Your task to perform on an android device: Open Google Chrome Image 0: 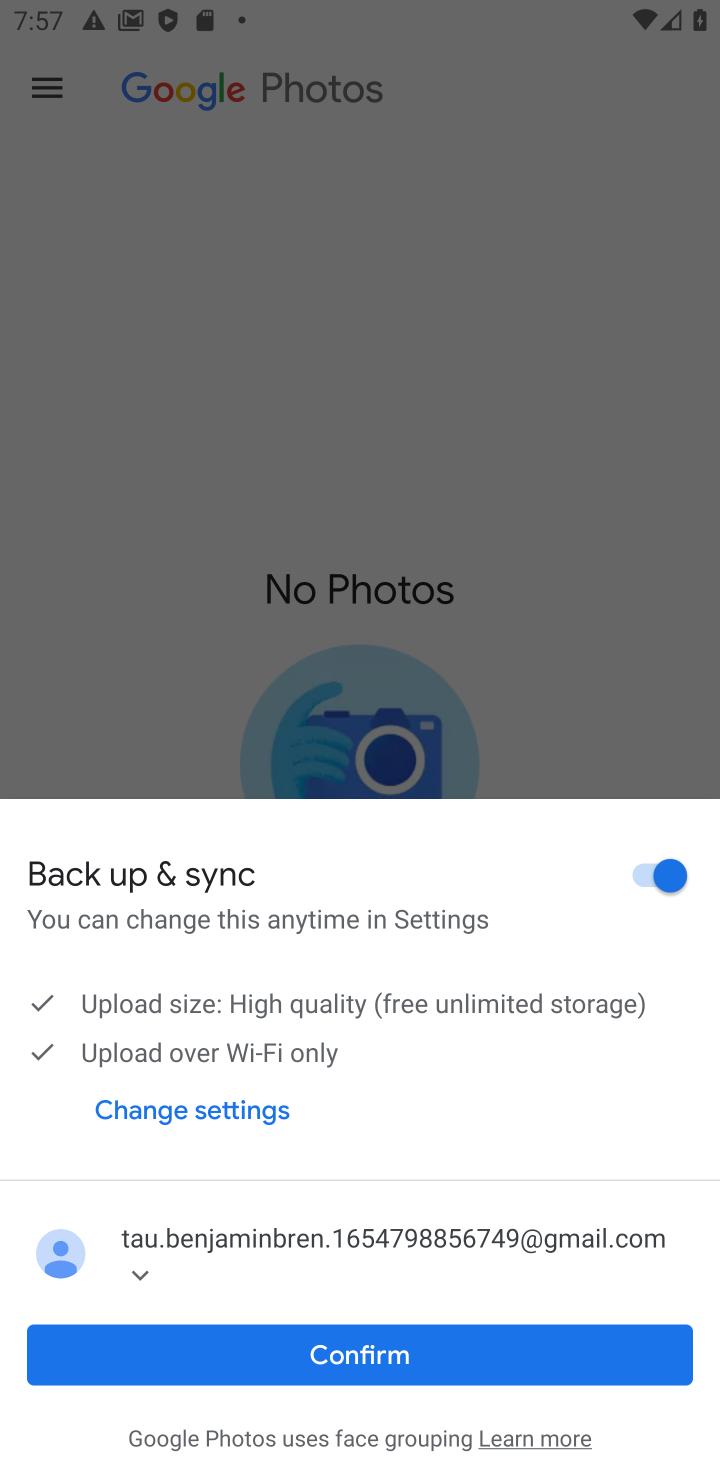
Step 0: press home button
Your task to perform on an android device: Open Google Chrome Image 1: 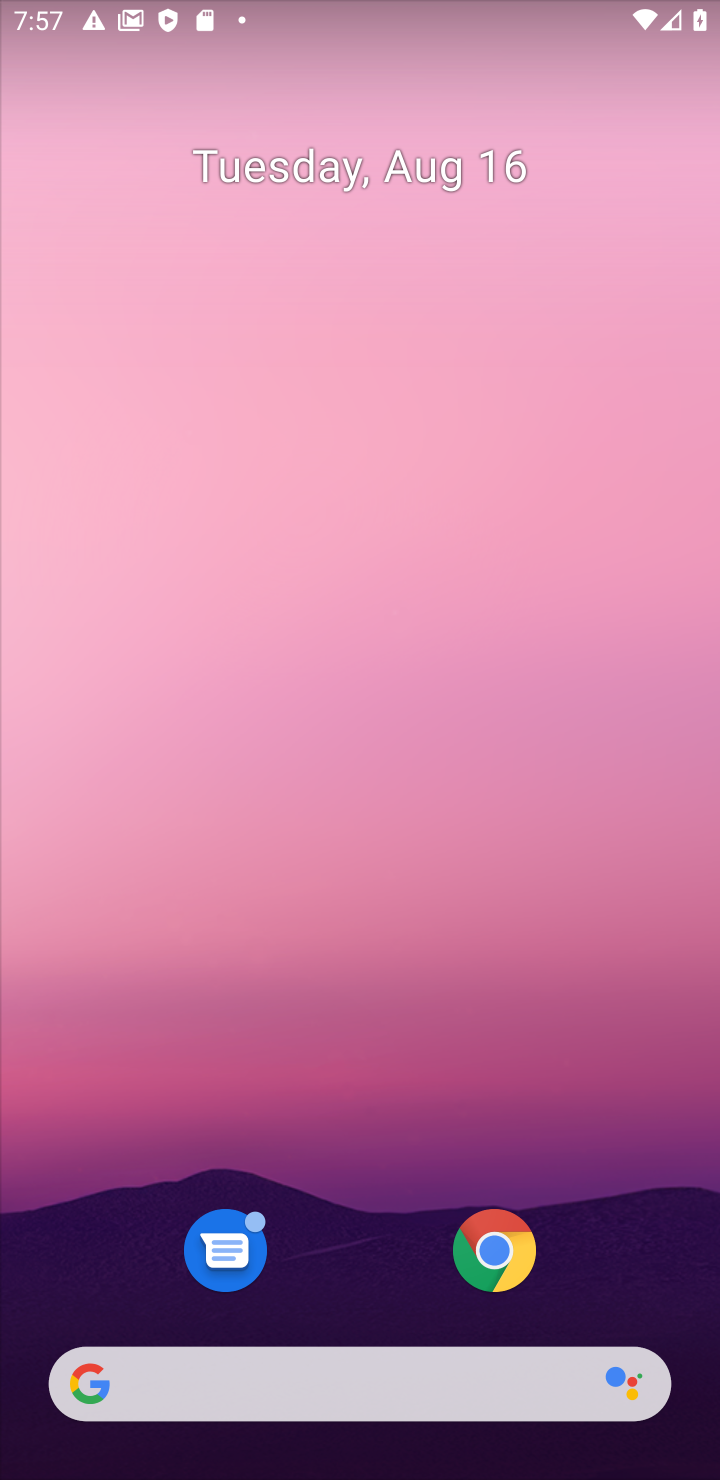
Step 1: click (498, 1258)
Your task to perform on an android device: Open Google Chrome Image 2: 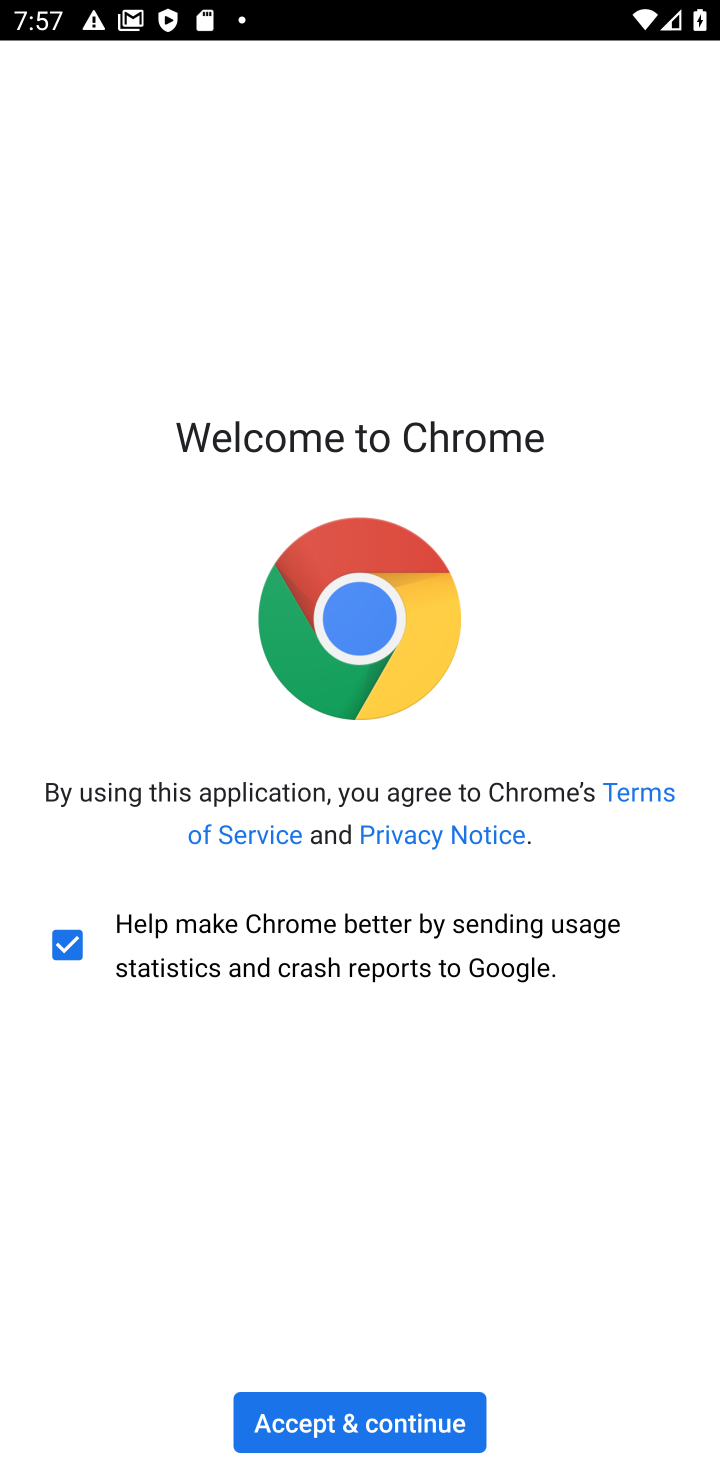
Step 2: click (398, 1421)
Your task to perform on an android device: Open Google Chrome Image 3: 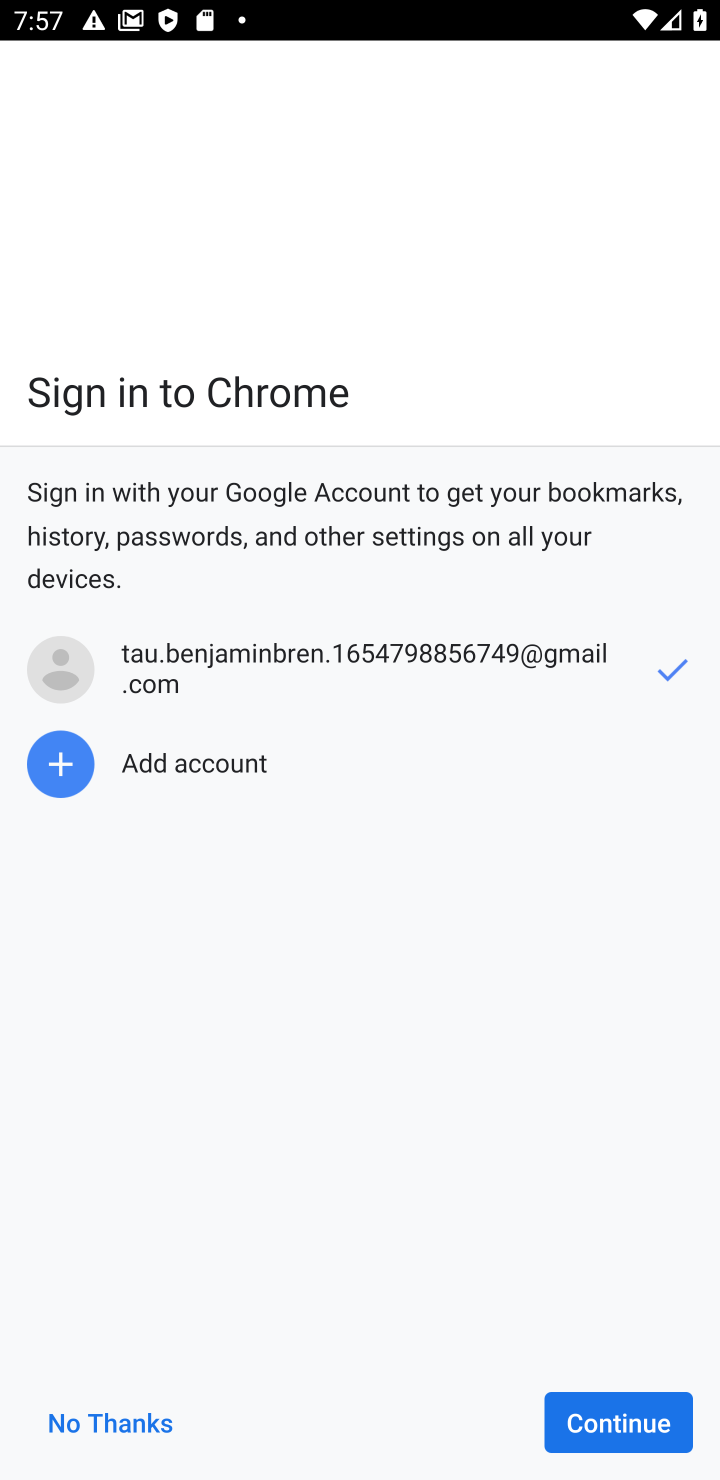
Step 3: click (591, 1417)
Your task to perform on an android device: Open Google Chrome Image 4: 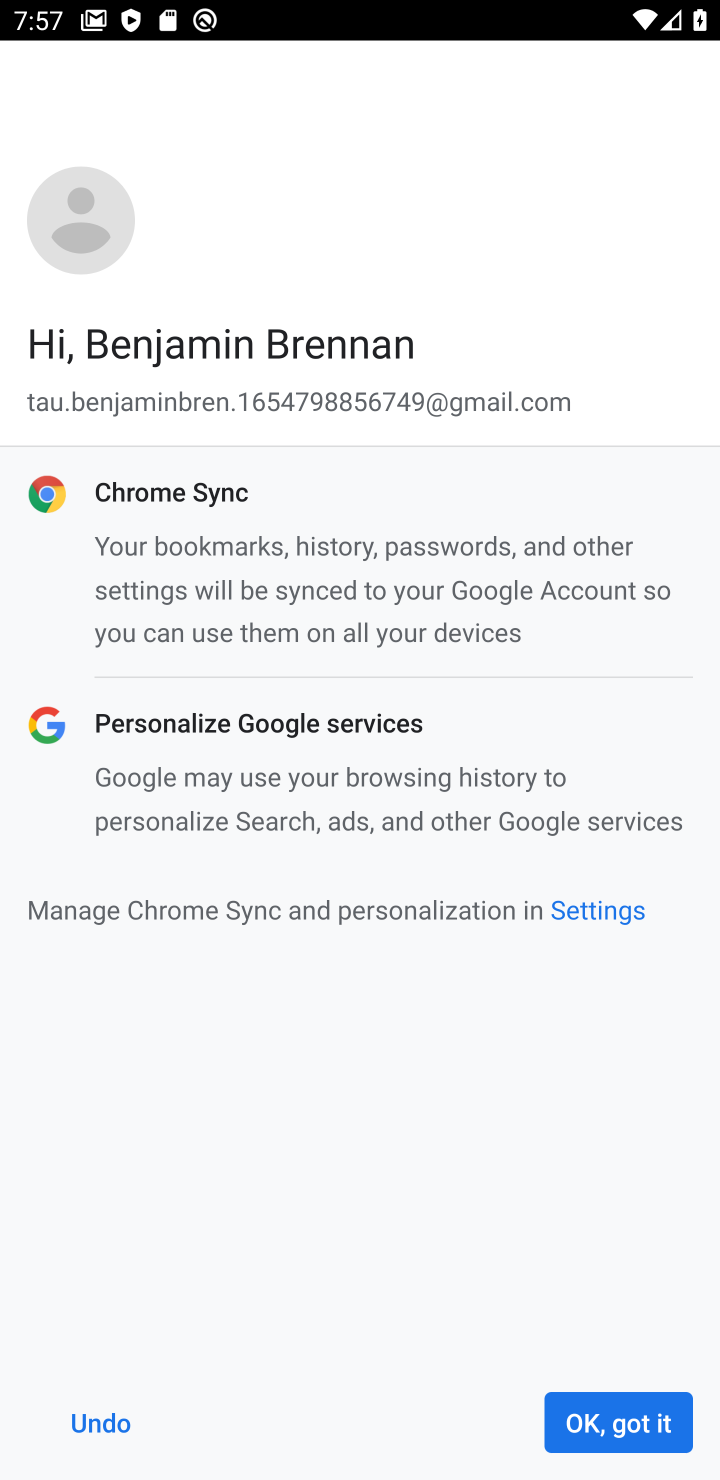
Step 4: click (591, 1417)
Your task to perform on an android device: Open Google Chrome Image 5: 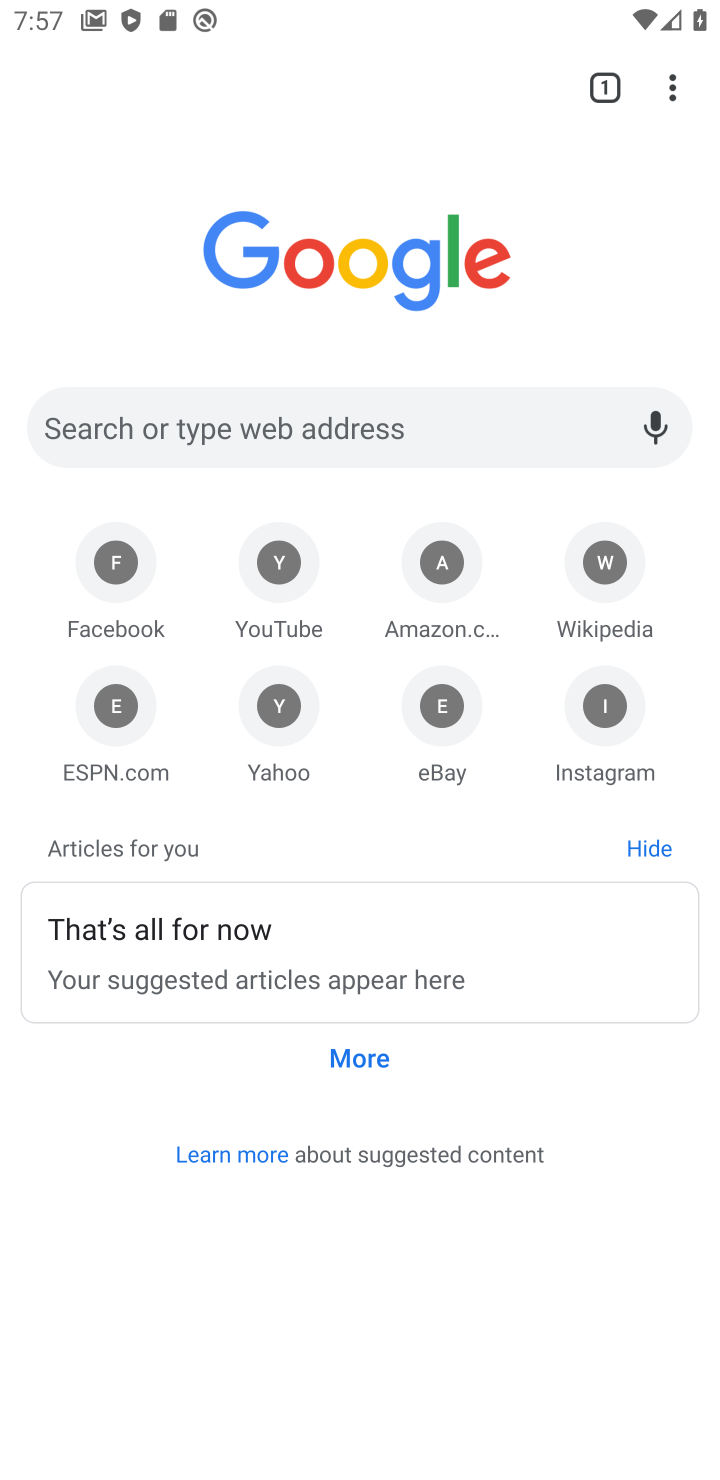
Step 5: task complete